Your task to perform on an android device: Open accessibility settings Image 0: 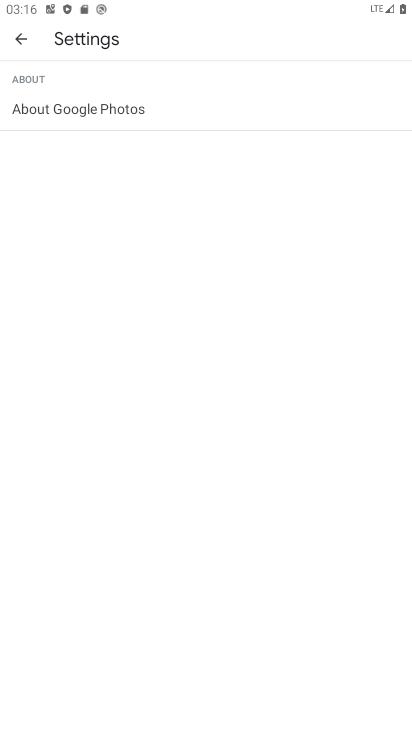
Step 0: press home button
Your task to perform on an android device: Open accessibility settings Image 1: 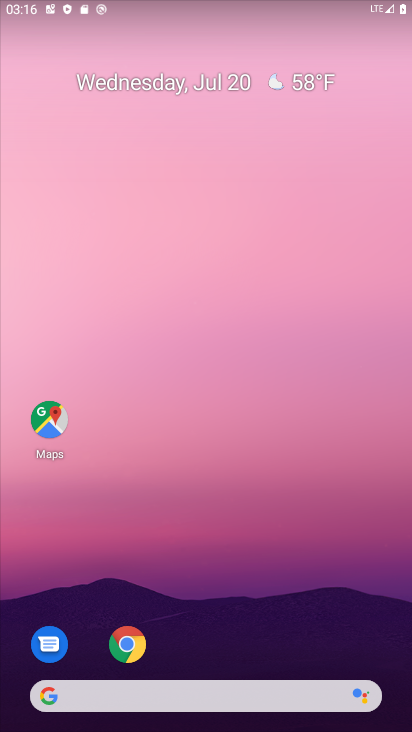
Step 1: drag from (19, 702) to (410, 2)
Your task to perform on an android device: Open accessibility settings Image 2: 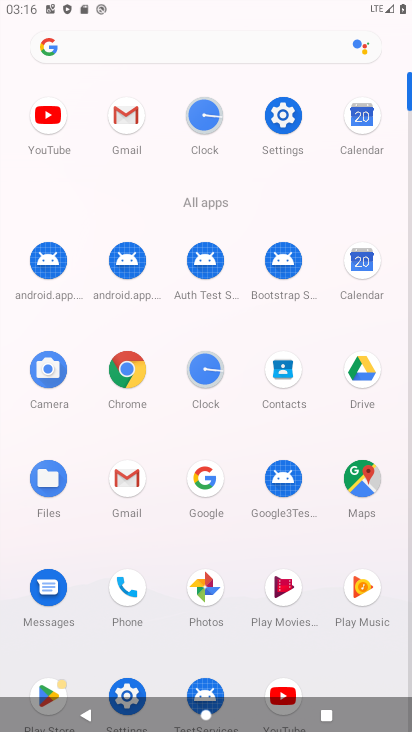
Step 2: click (121, 696)
Your task to perform on an android device: Open accessibility settings Image 3: 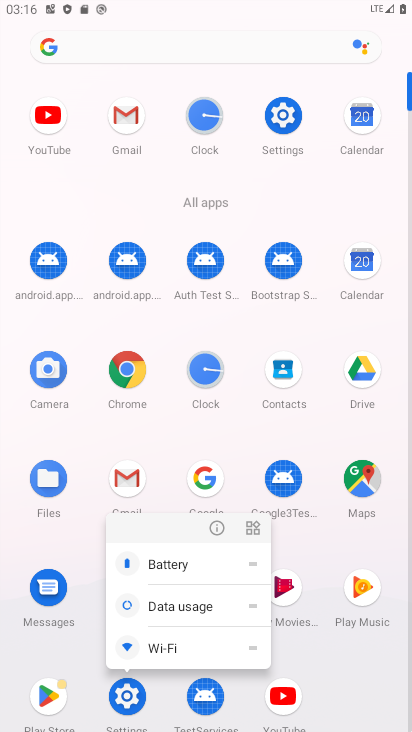
Step 3: click (126, 697)
Your task to perform on an android device: Open accessibility settings Image 4: 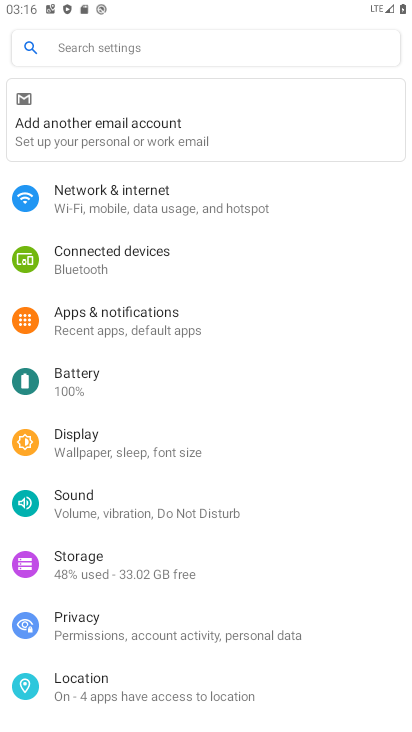
Step 4: drag from (363, 171) to (341, 31)
Your task to perform on an android device: Open accessibility settings Image 5: 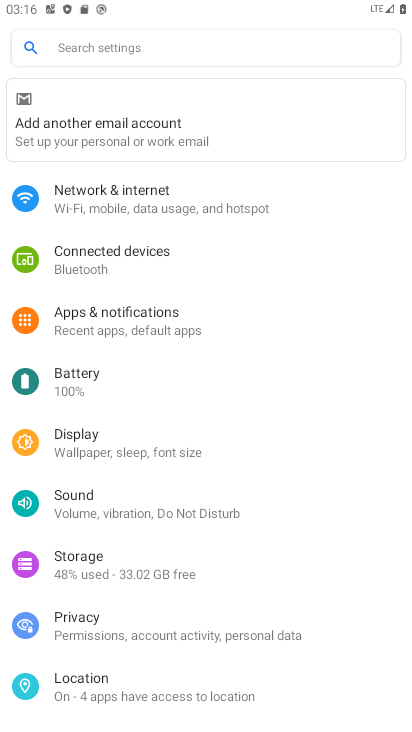
Step 5: drag from (371, 691) to (324, 101)
Your task to perform on an android device: Open accessibility settings Image 6: 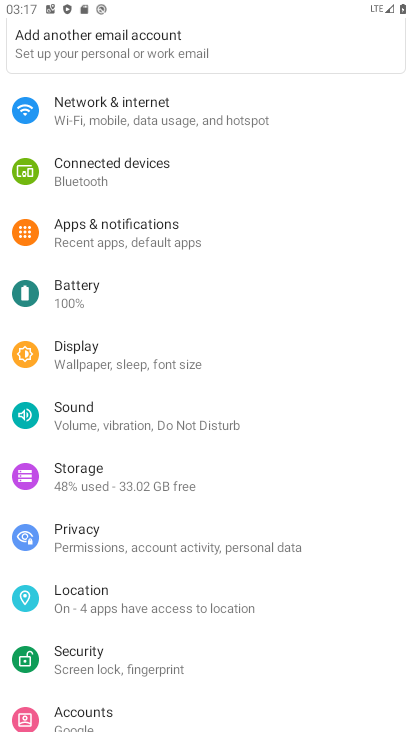
Step 6: drag from (325, 683) to (315, 293)
Your task to perform on an android device: Open accessibility settings Image 7: 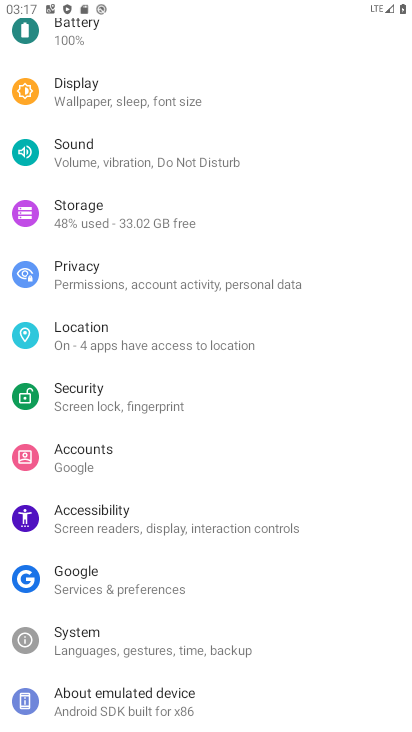
Step 7: click (127, 530)
Your task to perform on an android device: Open accessibility settings Image 8: 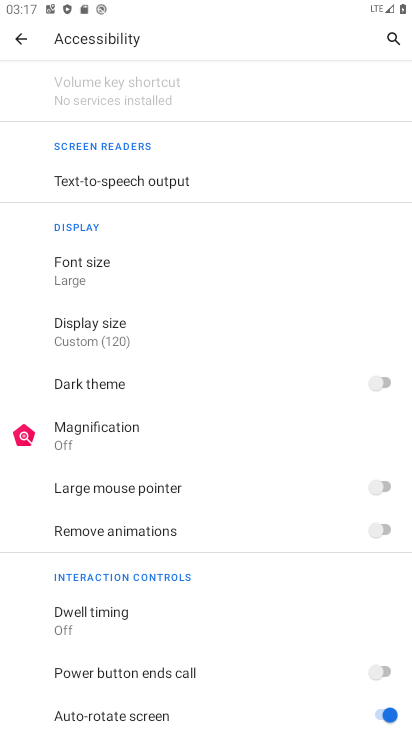
Step 8: task complete